Your task to perform on an android device: uninstall "Move to iOS" Image 0: 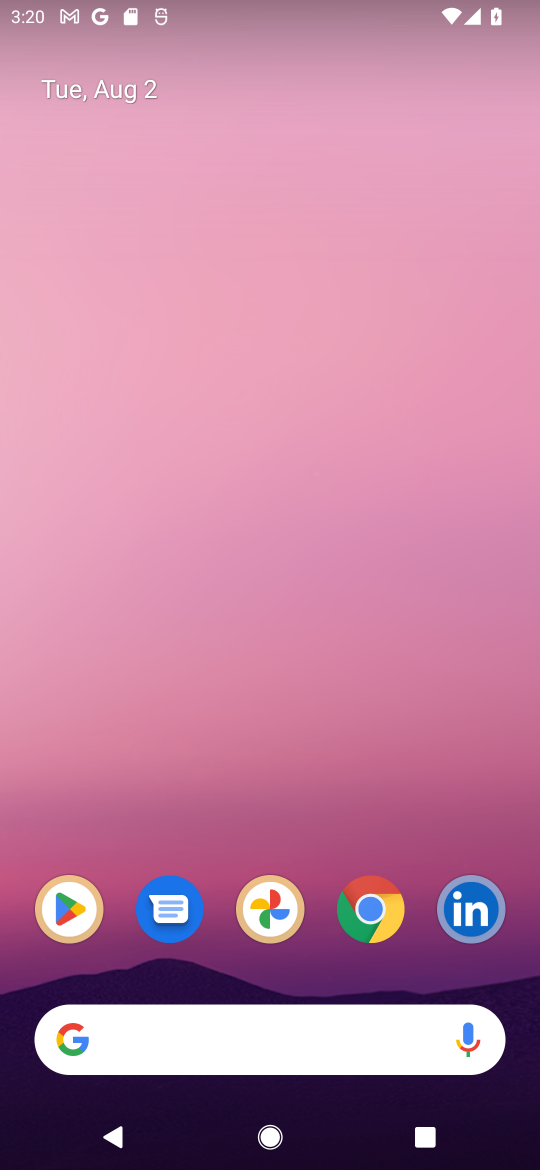
Step 0: drag from (281, 351) to (379, 0)
Your task to perform on an android device: uninstall "Move to iOS" Image 1: 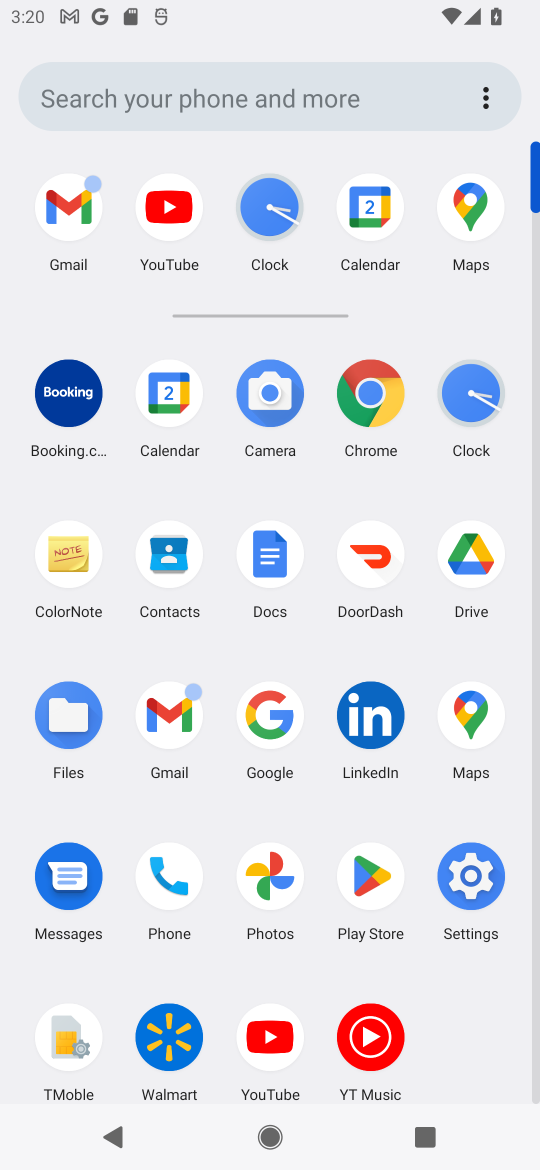
Step 1: click (365, 877)
Your task to perform on an android device: uninstall "Move to iOS" Image 2: 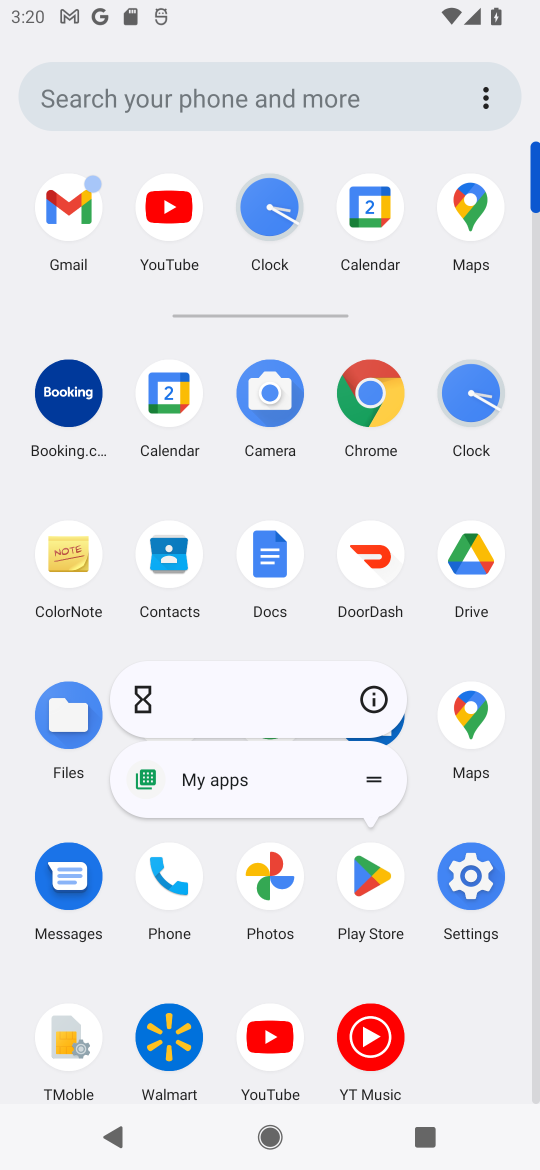
Step 2: click (380, 704)
Your task to perform on an android device: uninstall "Move to iOS" Image 3: 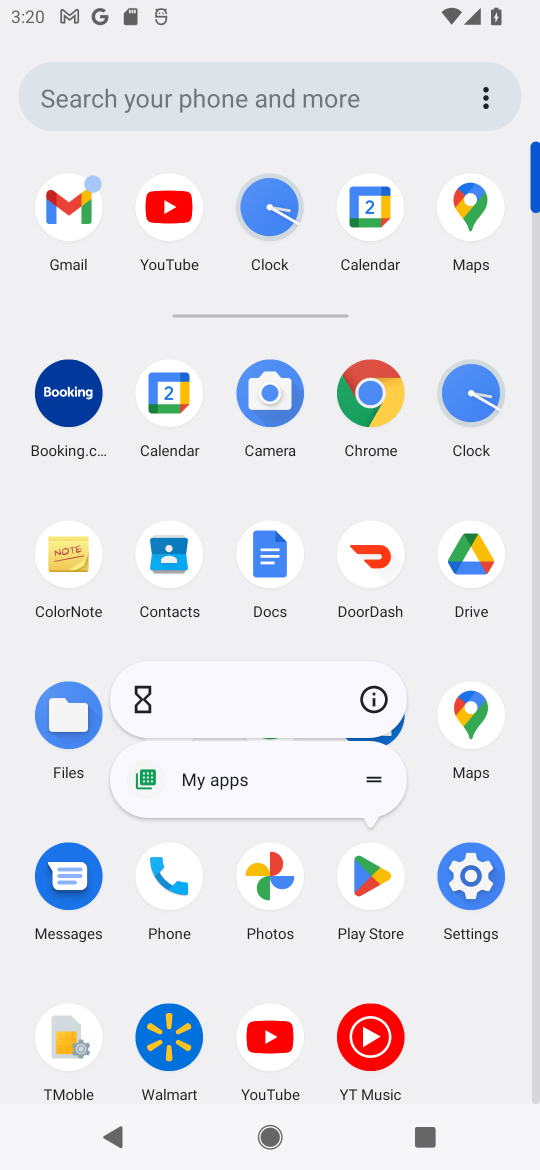
Step 3: click (371, 693)
Your task to perform on an android device: uninstall "Move to iOS" Image 4: 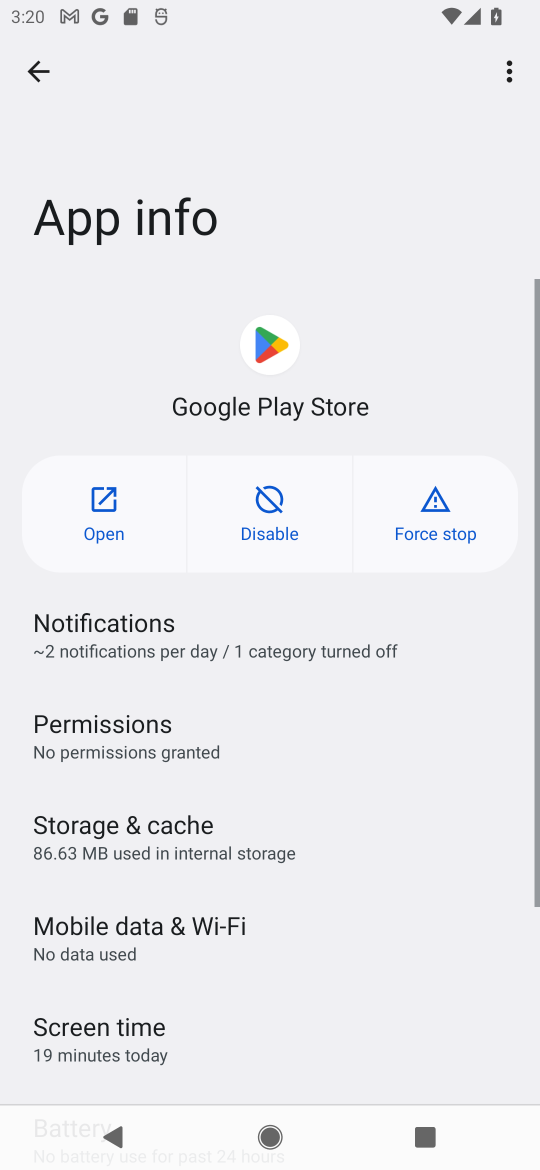
Step 4: click (92, 512)
Your task to perform on an android device: uninstall "Move to iOS" Image 5: 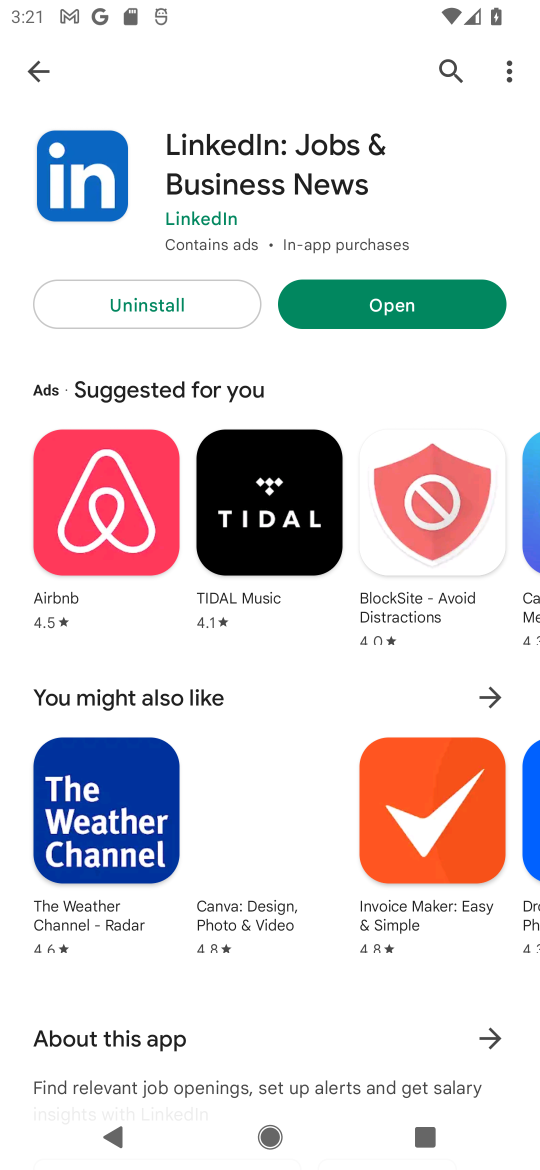
Step 5: click (447, 66)
Your task to perform on an android device: uninstall "Move to iOS" Image 6: 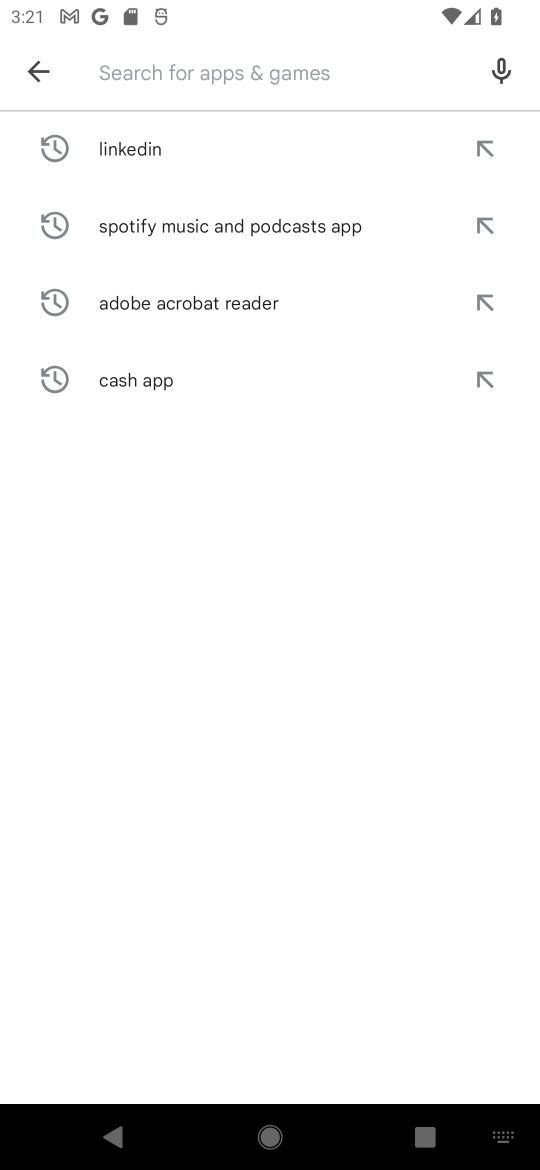
Step 6: type "Move to iOS"
Your task to perform on an android device: uninstall "Move to iOS" Image 7: 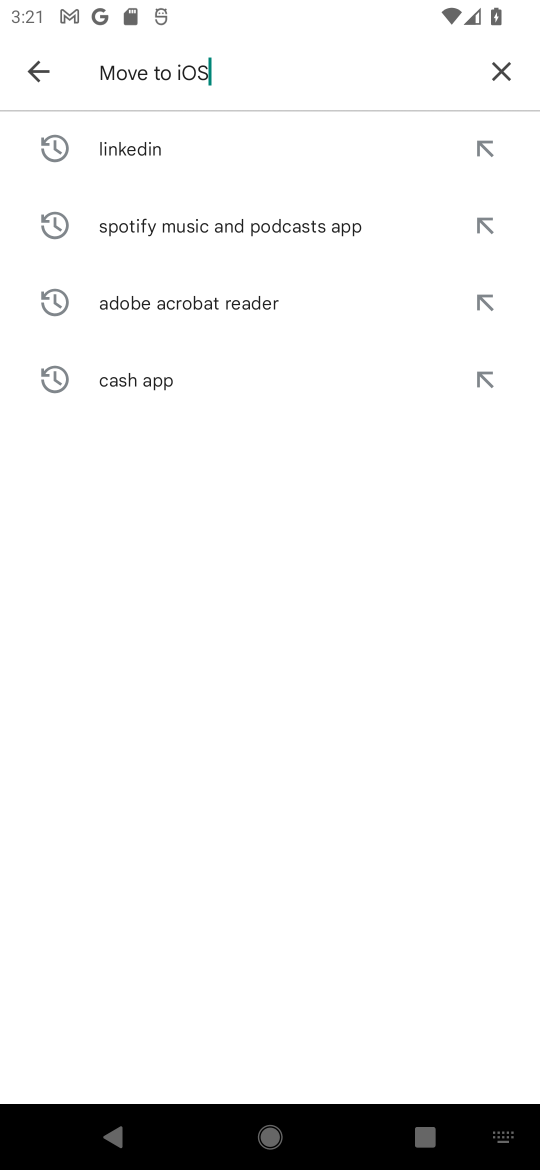
Step 7: type ""
Your task to perform on an android device: uninstall "Move to iOS" Image 8: 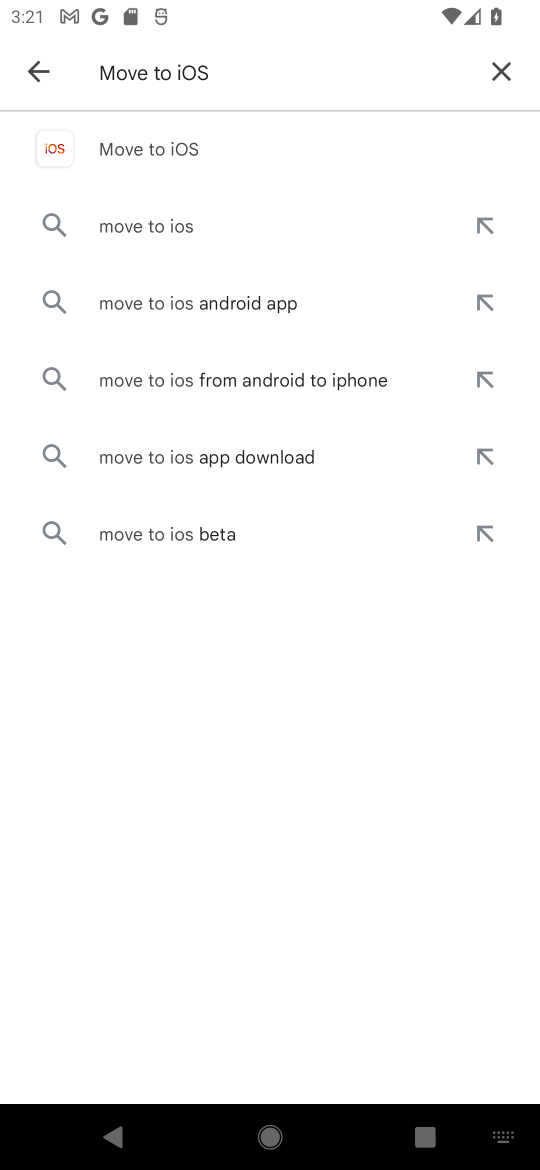
Step 8: click (182, 133)
Your task to perform on an android device: uninstall "Move to iOS" Image 9: 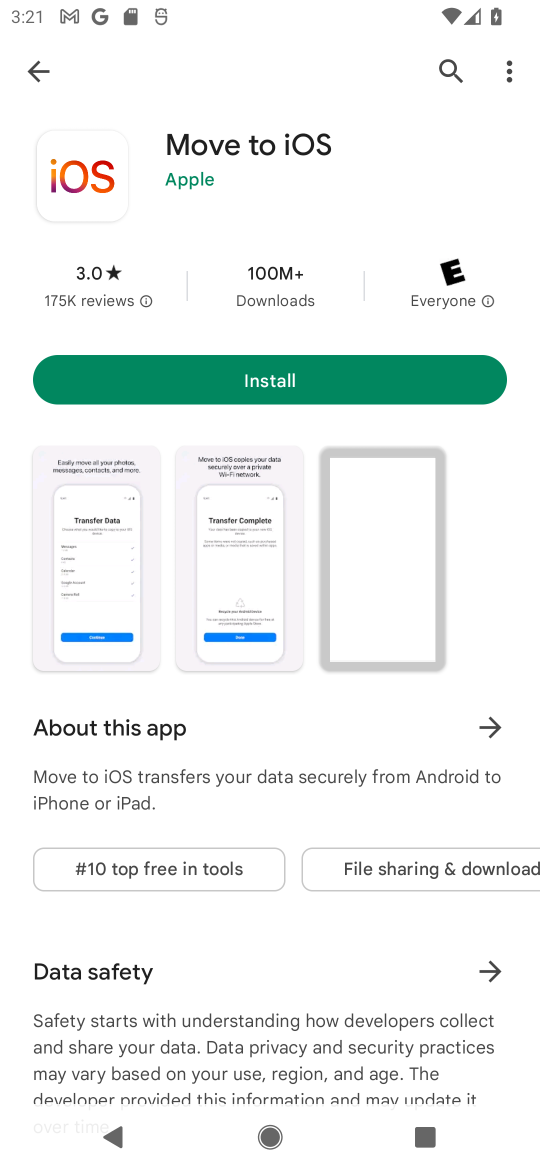
Step 9: task complete